Your task to perform on an android device: allow cookies in the chrome app Image 0: 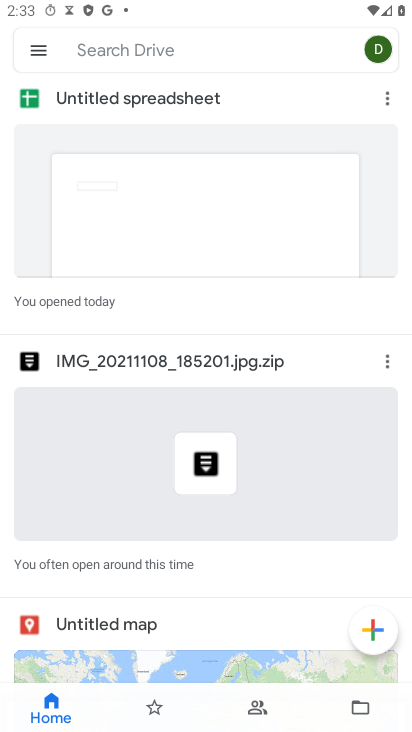
Step 0: press home button
Your task to perform on an android device: allow cookies in the chrome app Image 1: 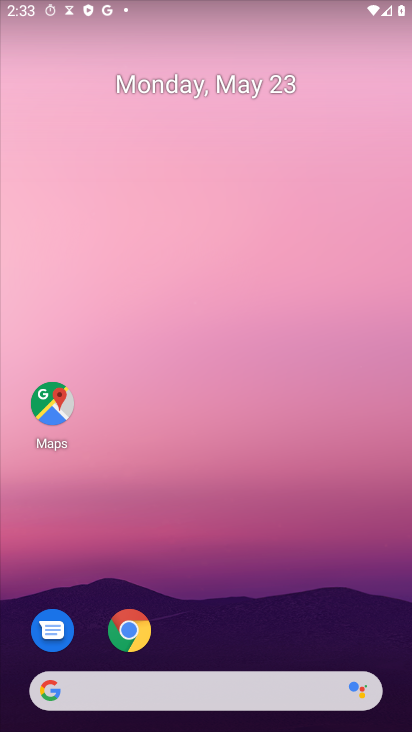
Step 1: drag from (304, 622) to (278, 49)
Your task to perform on an android device: allow cookies in the chrome app Image 2: 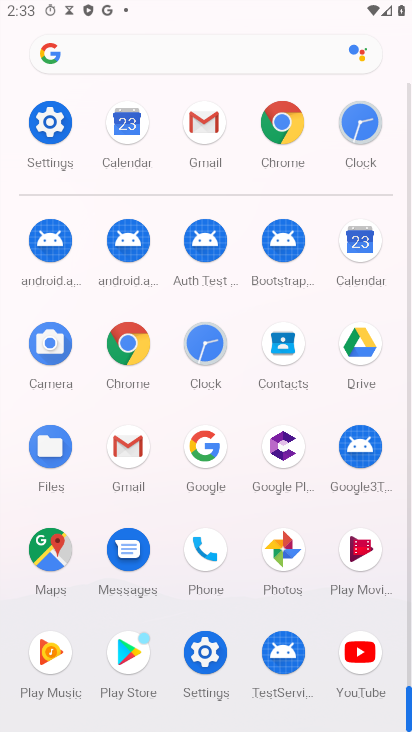
Step 2: click (295, 123)
Your task to perform on an android device: allow cookies in the chrome app Image 3: 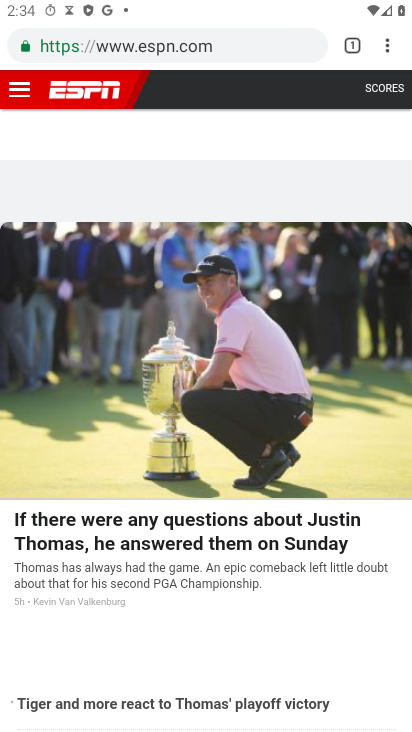
Step 3: drag from (383, 51) to (254, 541)
Your task to perform on an android device: allow cookies in the chrome app Image 4: 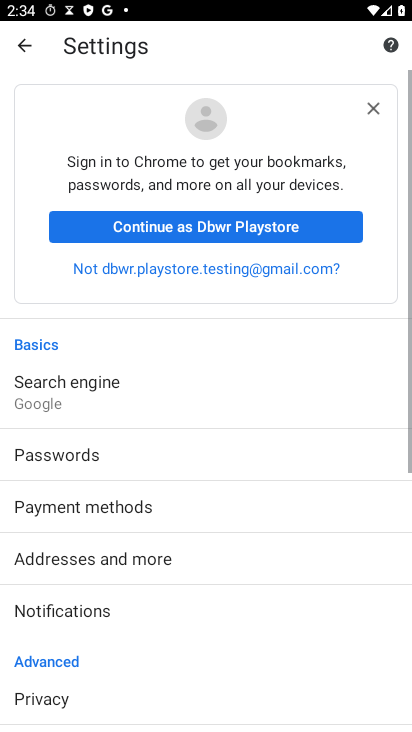
Step 4: drag from (183, 575) to (195, 180)
Your task to perform on an android device: allow cookies in the chrome app Image 5: 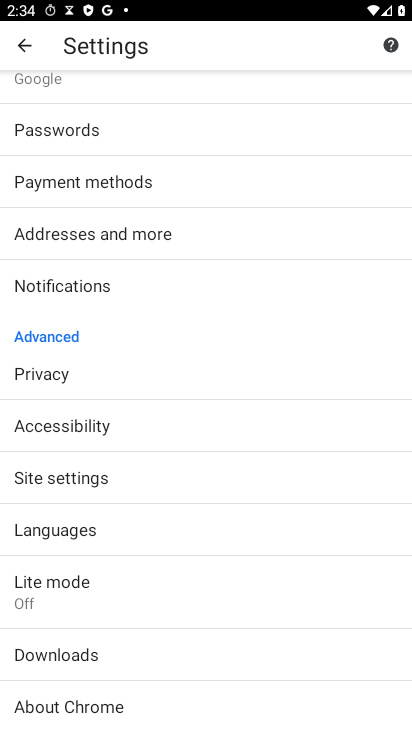
Step 5: drag from (195, 180) to (226, 585)
Your task to perform on an android device: allow cookies in the chrome app Image 6: 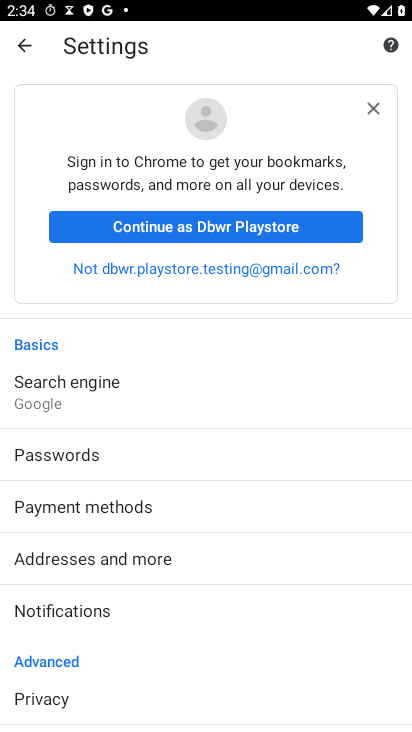
Step 6: drag from (192, 579) to (160, 159)
Your task to perform on an android device: allow cookies in the chrome app Image 7: 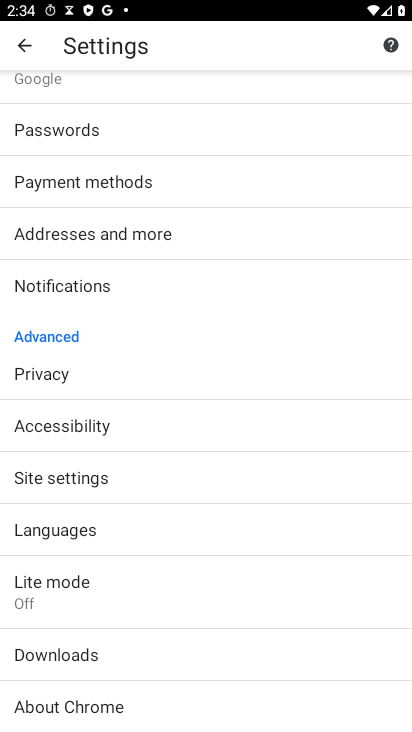
Step 7: drag from (142, 608) to (180, 212)
Your task to perform on an android device: allow cookies in the chrome app Image 8: 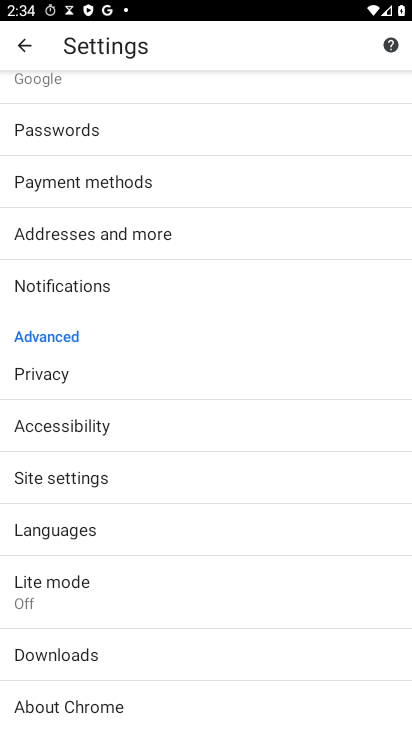
Step 8: drag from (180, 222) to (219, 636)
Your task to perform on an android device: allow cookies in the chrome app Image 9: 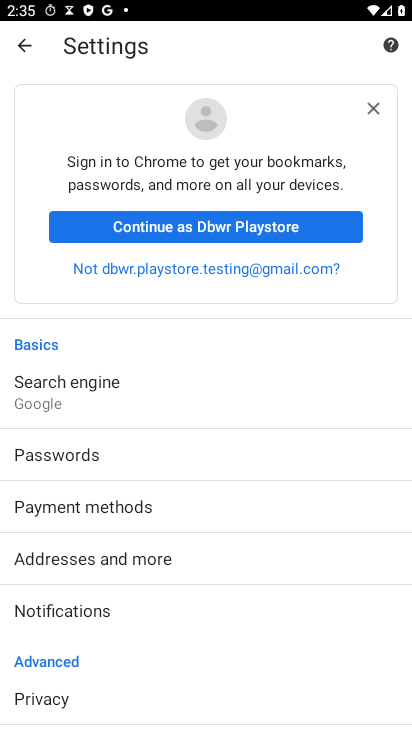
Step 9: click (106, 396)
Your task to perform on an android device: allow cookies in the chrome app Image 10: 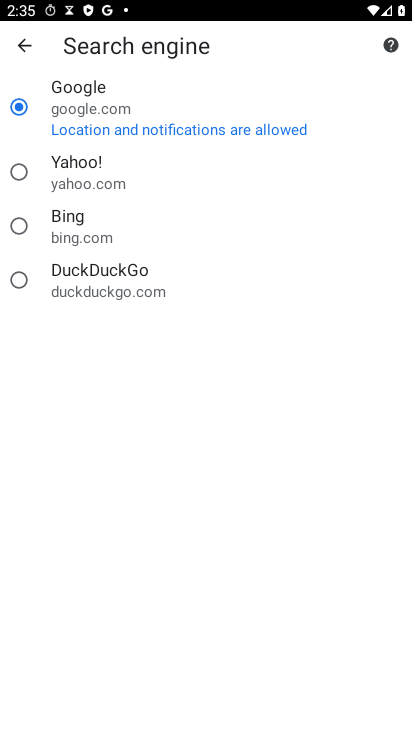
Step 10: click (29, 56)
Your task to perform on an android device: allow cookies in the chrome app Image 11: 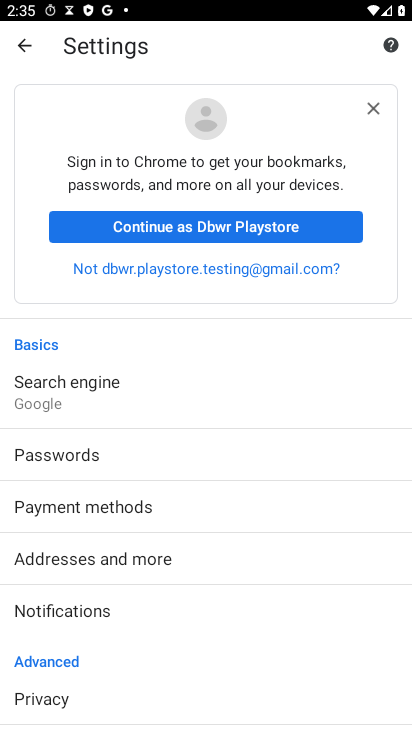
Step 11: drag from (114, 625) to (207, 218)
Your task to perform on an android device: allow cookies in the chrome app Image 12: 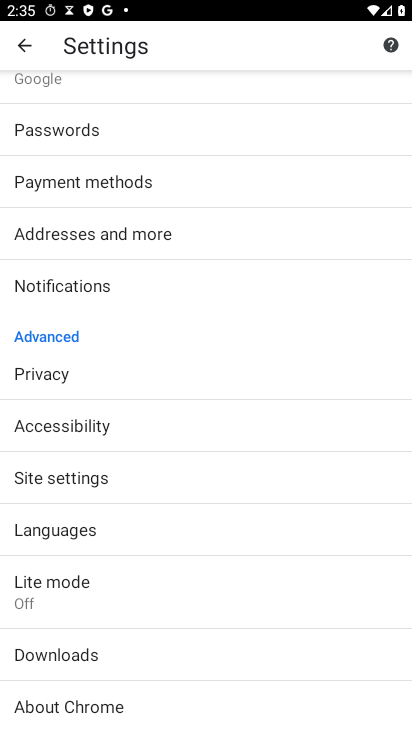
Step 12: click (112, 469)
Your task to perform on an android device: allow cookies in the chrome app Image 13: 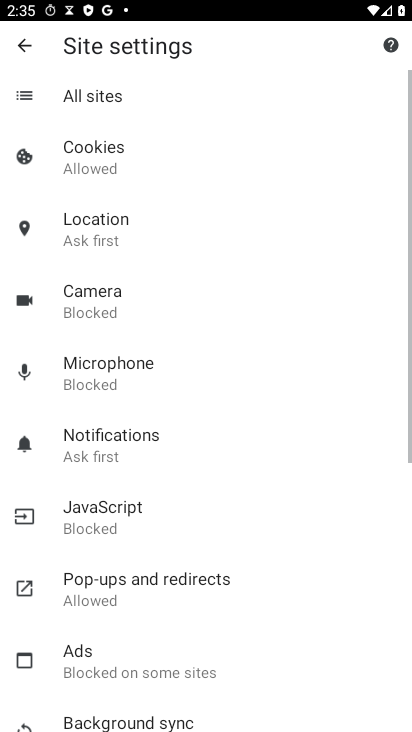
Step 13: click (91, 166)
Your task to perform on an android device: allow cookies in the chrome app Image 14: 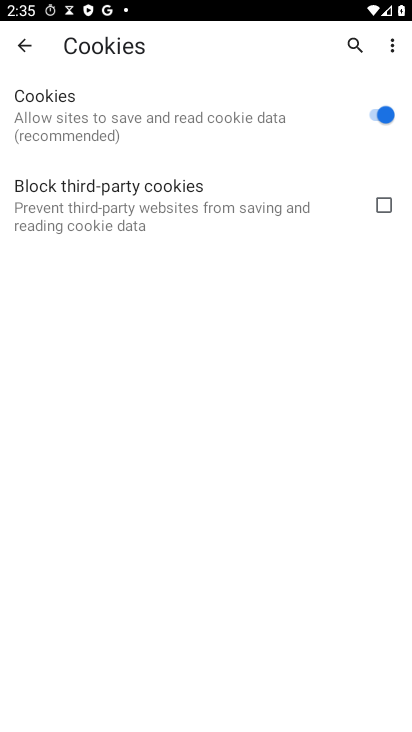
Step 14: task complete